Your task to perform on an android device: turn pop-ups off in chrome Image 0: 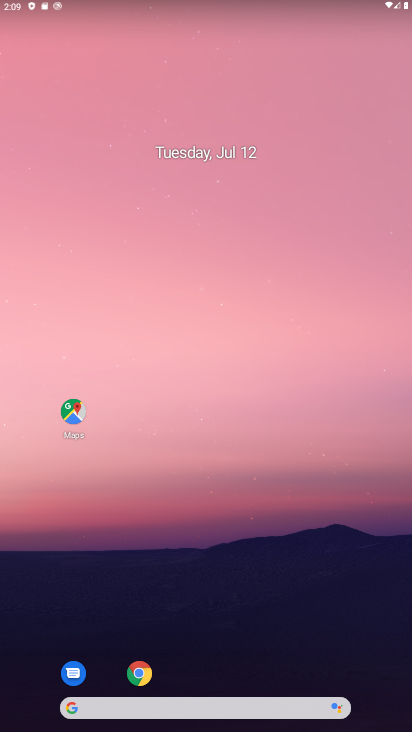
Step 0: drag from (198, 683) to (114, 173)
Your task to perform on an android device: turn pop-ups off in chrome Image 1: 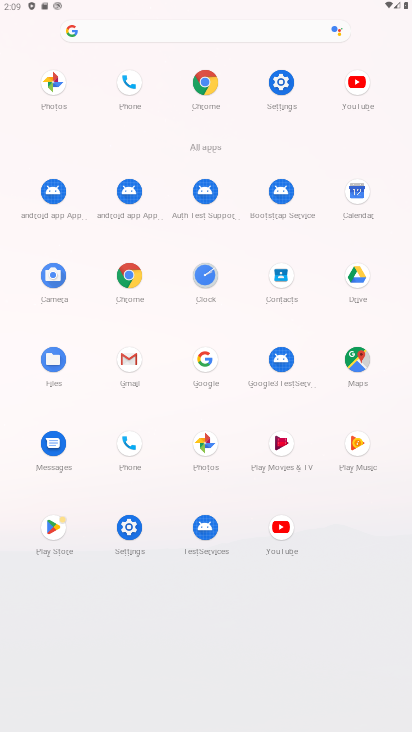
Step 1: click (213, 102)
Your task to perform on an android device: turn pop-ups off in chrome Image 2: 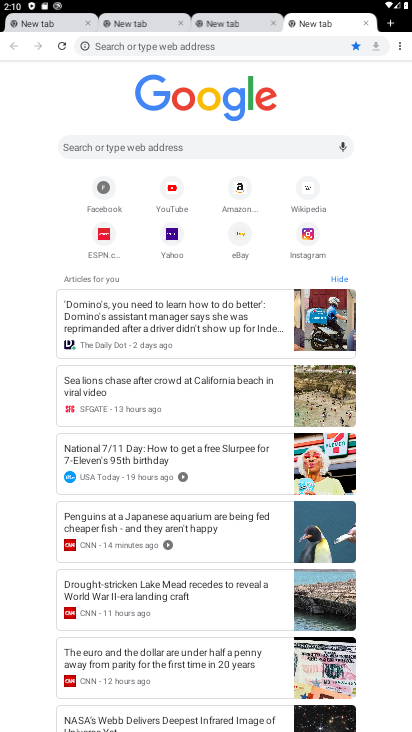
Step 2: click (395, 45)
Your task to perform on an android device: turn pop-ups off in chrome Image 3: 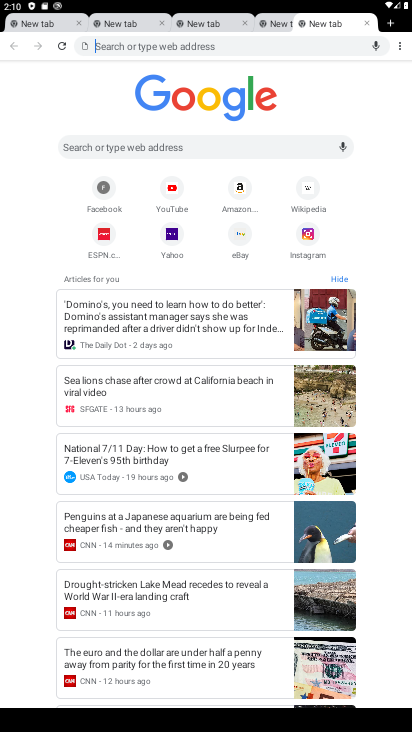
Step 3: drag from (399, 51) to (309, 212)
Your task to perform on an android device: turn pop-ups off in chrome Image 4: 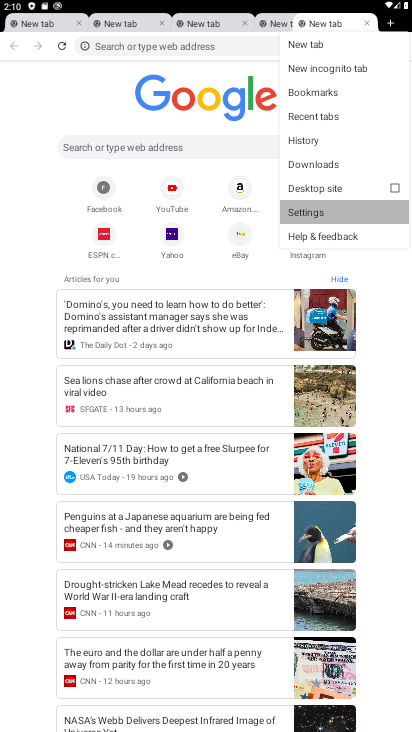
Step 4: click (309, 212)
Your task to perform on an android device: turn pop-ups off in chrome Image 5: 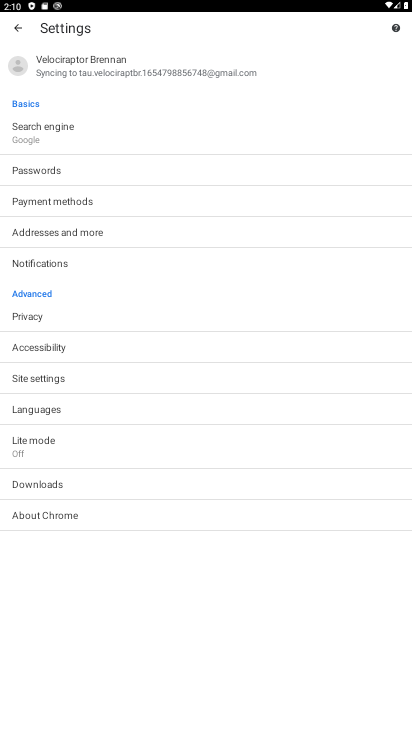
Step 5: click (34, 372)
Your task to perform on an android device: turn pop-ups off in chrome Image 6: 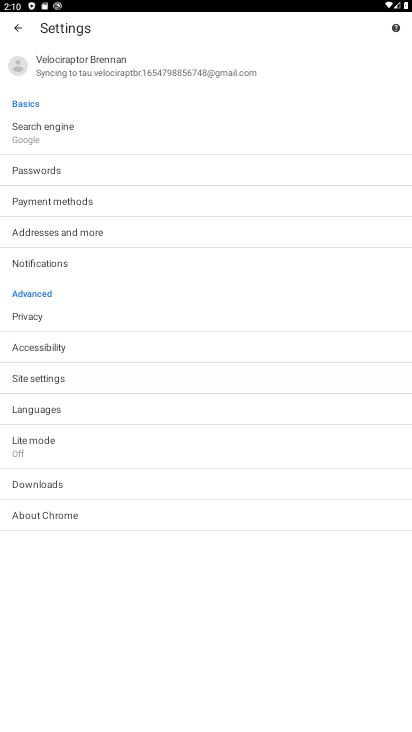
Step 6: click (32, 373)
Your task to perform on an android device: turn pop-ups off in chrome Image 7: 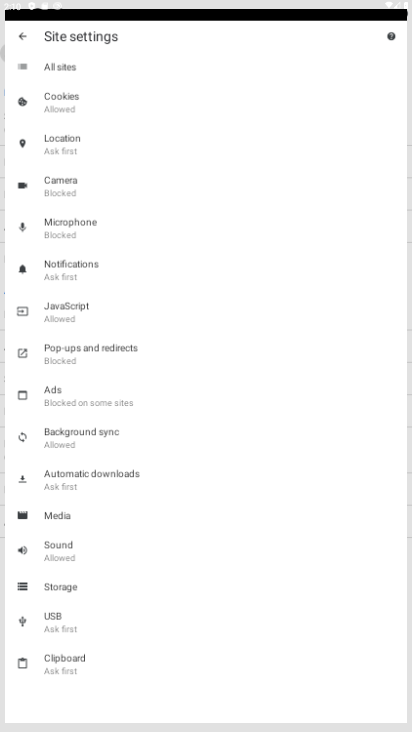
Step 7: click (32, 373)
Your task to perform on an android device: turn pop-ups off in chrome Image 8: 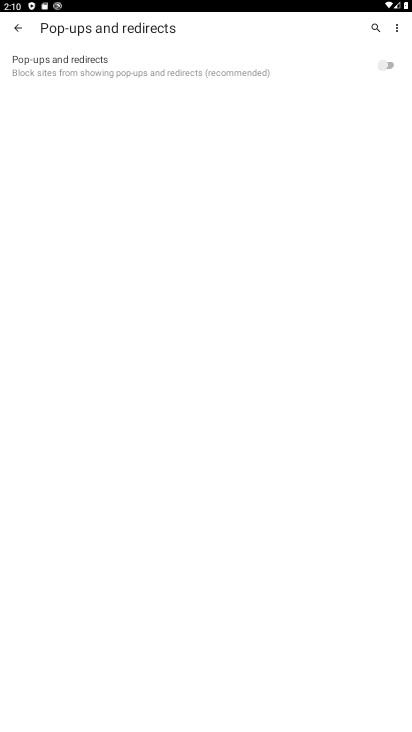
Step 8: click (381, 58)
Your task to perform on an android device: turn pop-ups off in chrome Image 9: 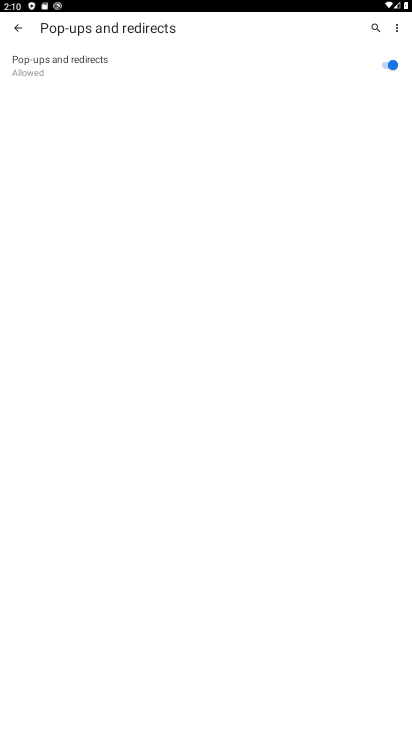
Step 9: task complete